Your task to perform on an android device: Search for vegetarian restaurants on Maps Image 0: 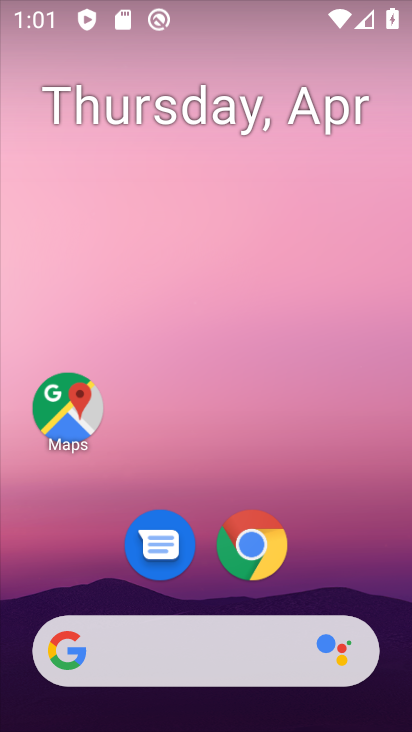
Step 0: drag from (155, 640) to (311, 72)
Your task to perform on an android device: Search for vegetarian restaurants on Maps Image 1: 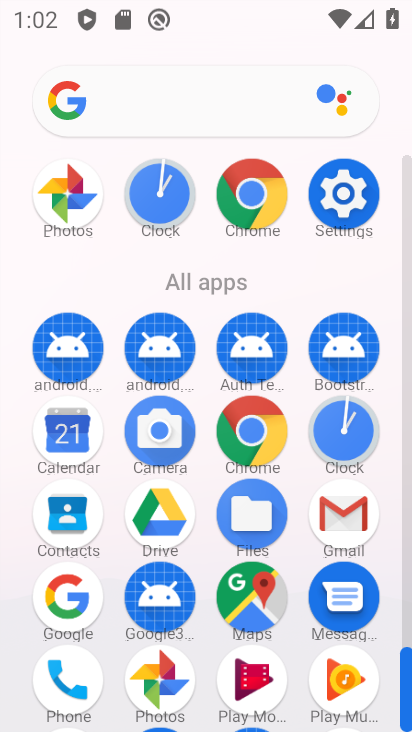
Step 1: click (258, 605)
Your task to perform on an android device: Search for vegetarian restaurants on Maps Image 2: 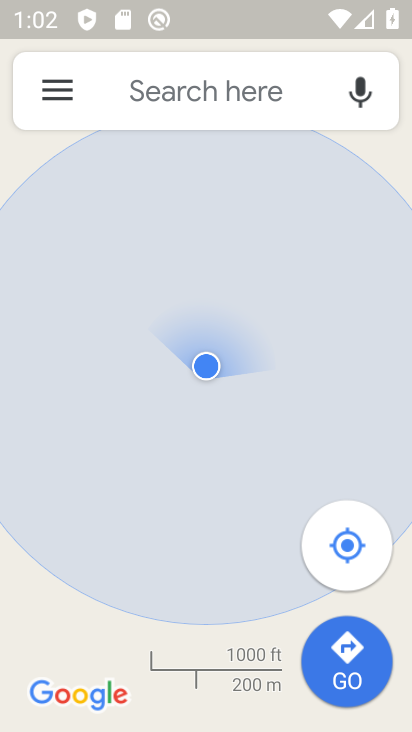
Step 2: click (197, 88)
Your task to perform on an android device: Search for vegetarian restaurants on Maps Image 3: 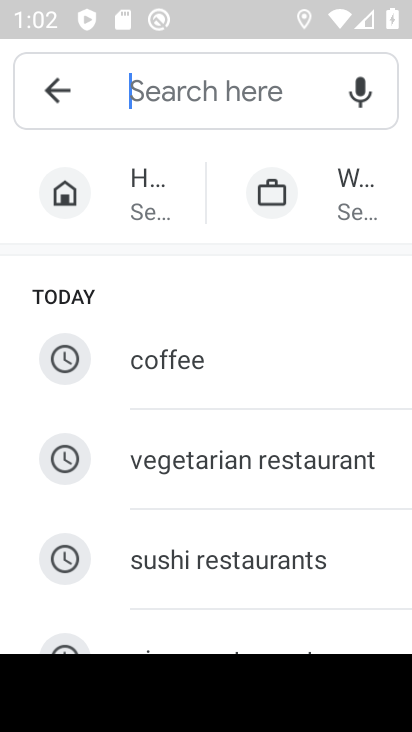
Step 3: click (243, 466)
Your task to perform on an android device: Search for vegetarian restaurants on Maps Image 4: 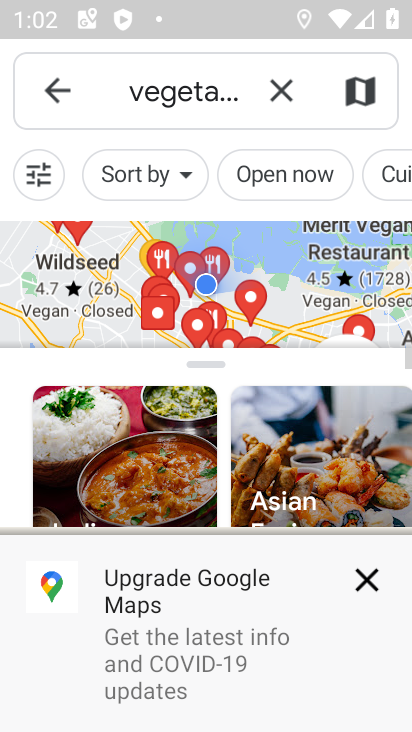
Step 4: click (362, 571)
Your task to perform on an android device: Search for vegetarian restaurants on Maps Image 5: 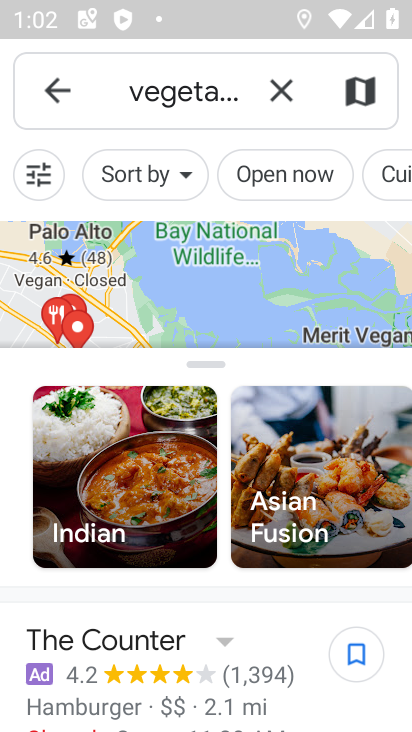
Step 5: task complete